Your task to perform on an android device: Go to settings Image 0: 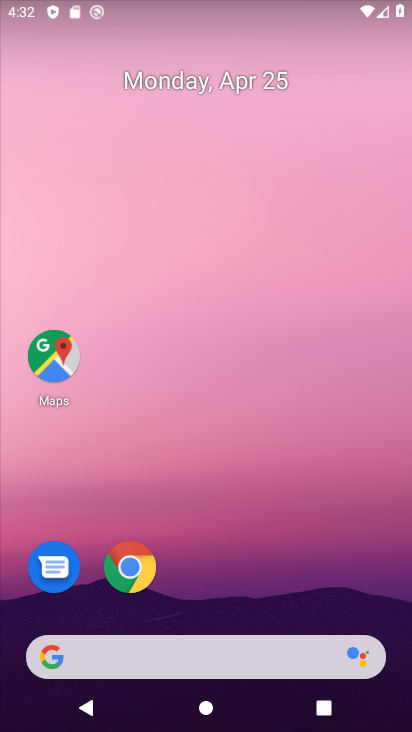
Step 0: drag from (157, 547) to (275, 63)
Your task to perform on an android device: Go to settings Image 1: 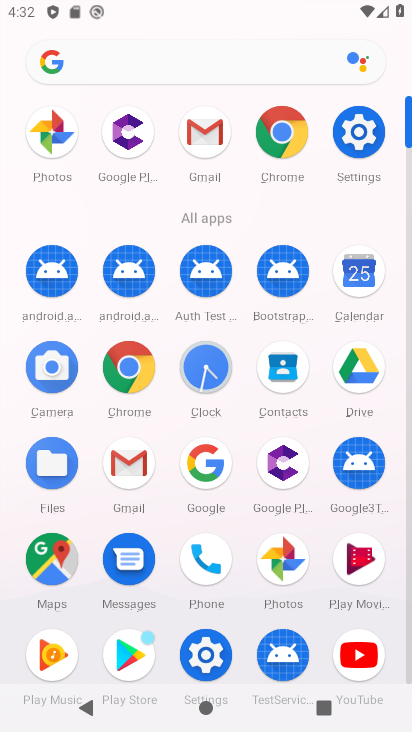
Step 1: click (352, 128)
Your task to perform on an android device: Go to settings Image 2: 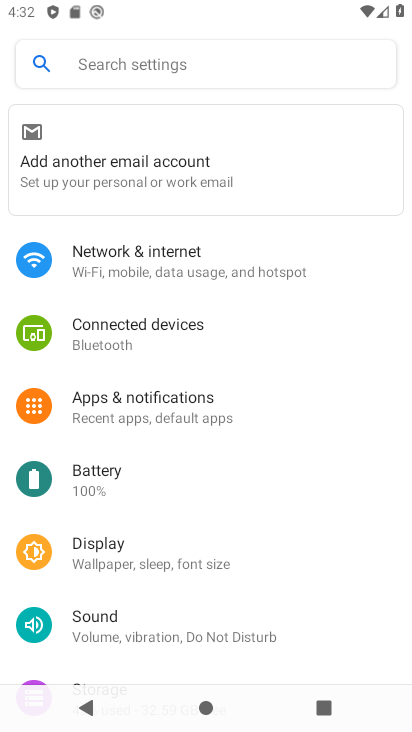
Step 2: task complete